Your task to perform on an android device: What's on my calendar today? Image 0: 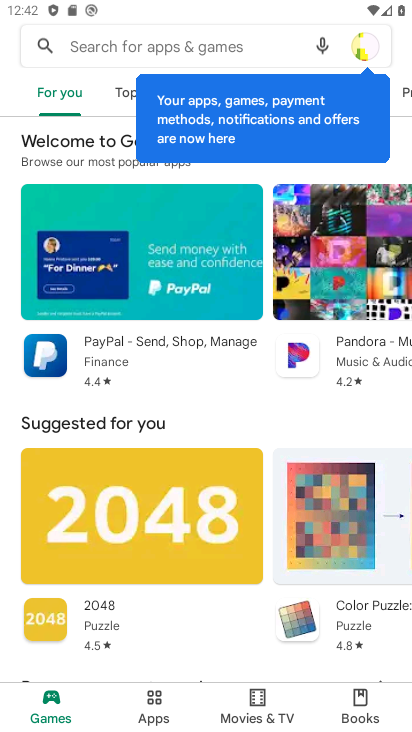
Step 0: press home button
Your task to perform on an android device: What's on my calendar today? Image 1: 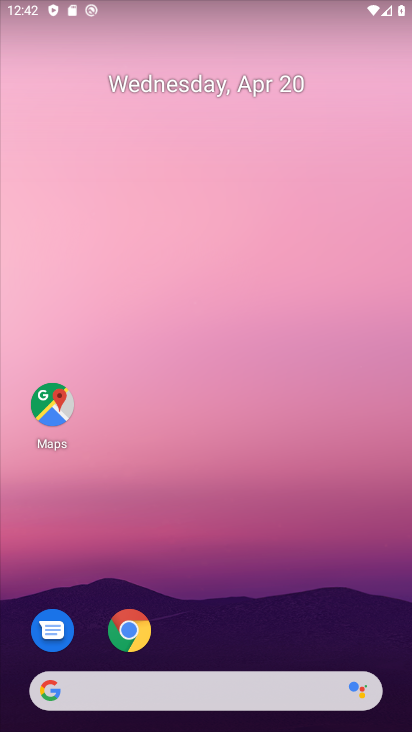
Step 1: drag from (382, 589) to (377, 156)
Your task to perform on an android device: What's on my calendar today? Image 2: 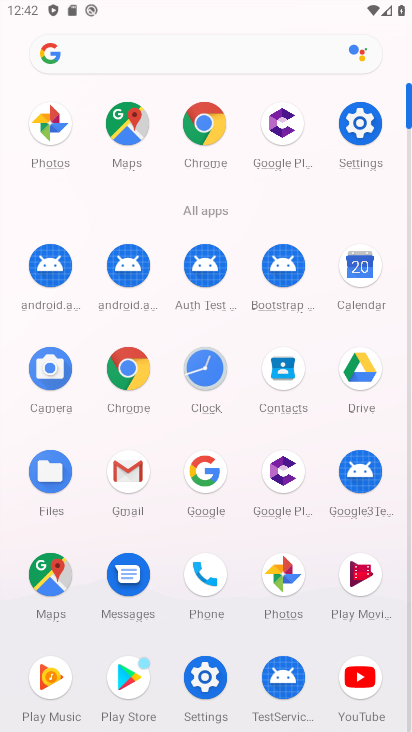
Step 2: click (360, 271)
Your task to perform on an android device: What's on my calendar today? Image 3: 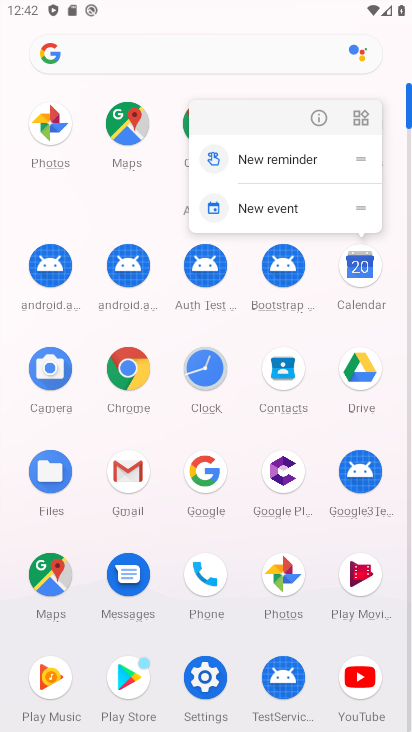
Step 3: click (355, 267)
Your task to perform on an android device: What's on my calendar today? Image 4: 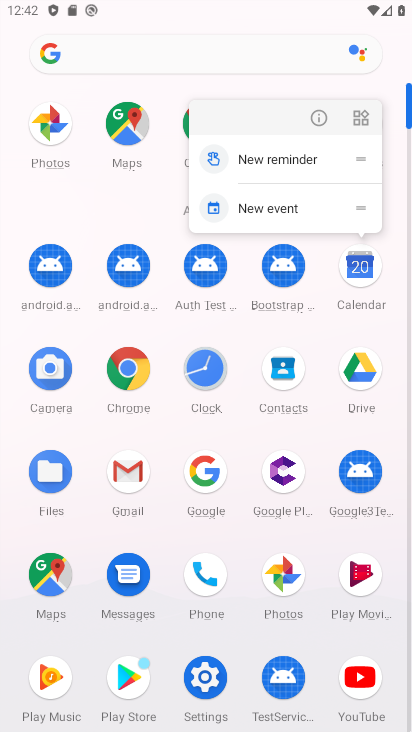
Step 4: click (355, 266)
Your task to perform on an android device: What's on my calendar today? Image 5: 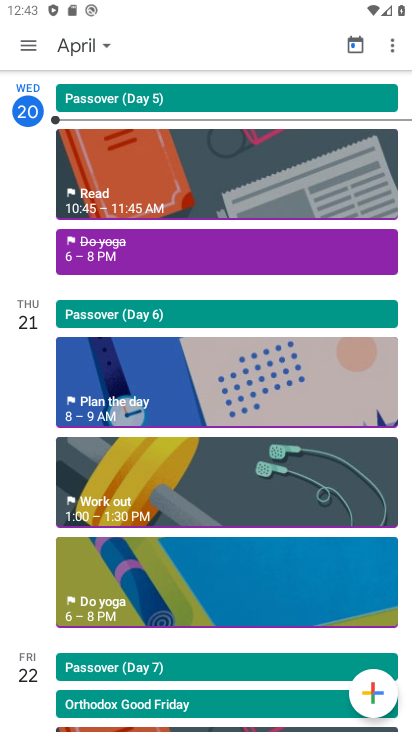
Step 5: task complete